Your task to perform on an android device: turn on showing notifications on the lock screen Image 0: 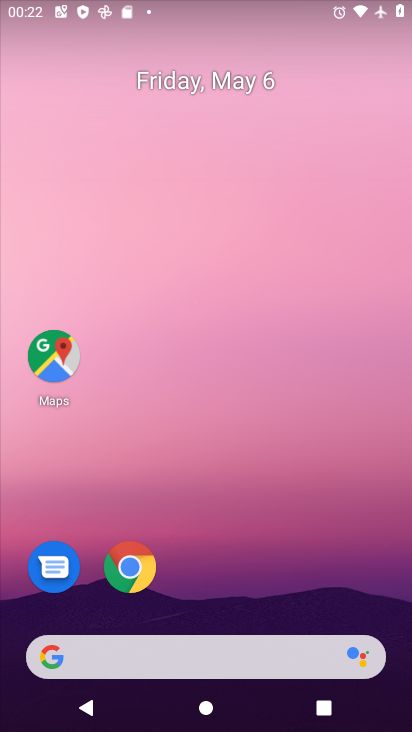
Step 0: drag from (217, 615) to (170, 188)
Your task to perform on an android device: turn on showing notifications on the lock screen Image 1: 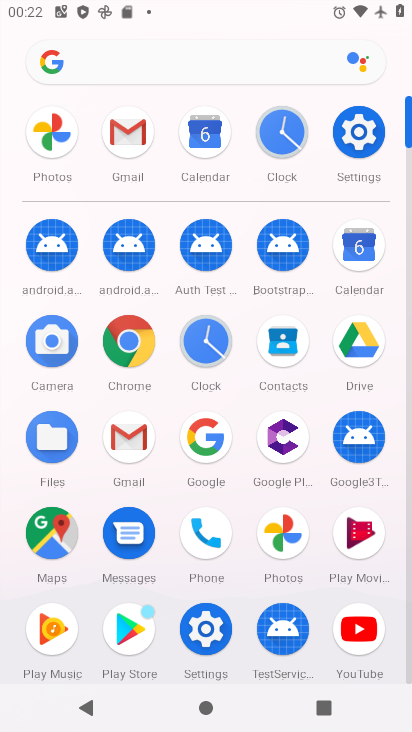
Step 1: click (352, 147)
Your task to perform on an android device: turn on showing notifications on the lock screen Image 2: 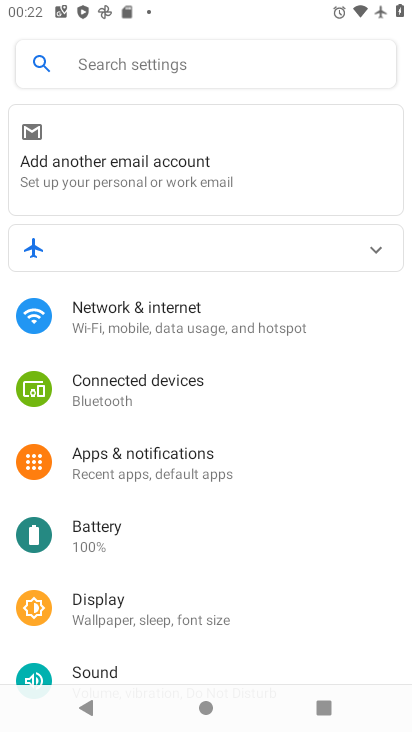
Step 2: drag from (194, 605) to (212, 289)
Your task to perform on an android device: turn on showing notifications on the lock screen Image 3: 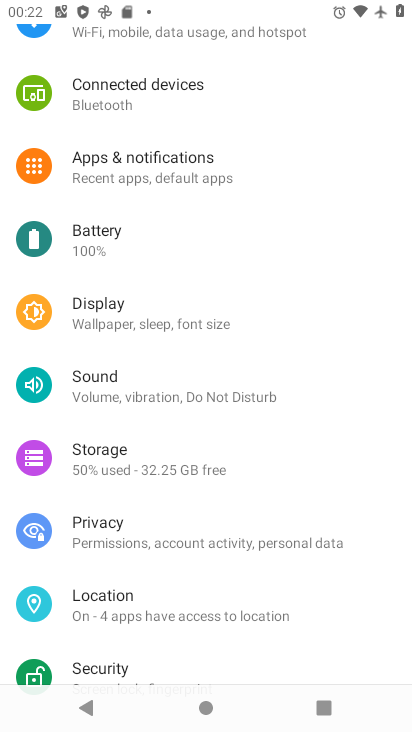
Step 3: drag from (178, 603) to (168, 647)
Your task to perform on an android device: turn on showing notifications on the lock screen Image 4: 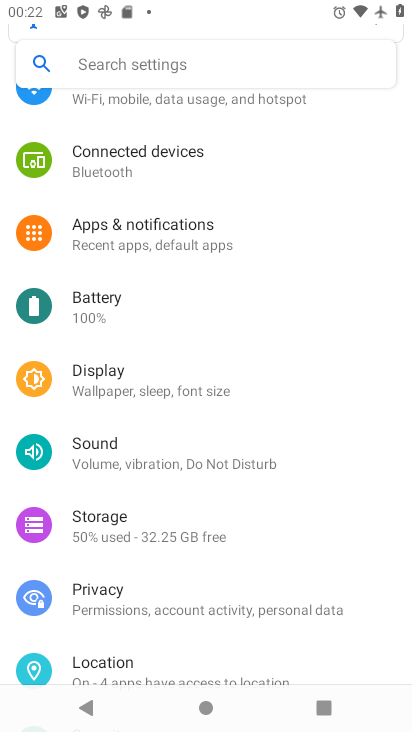
Step 4: click (166, 244)
Your task to perform on an android device: turn on showing notifications on the lock screen Image 5: 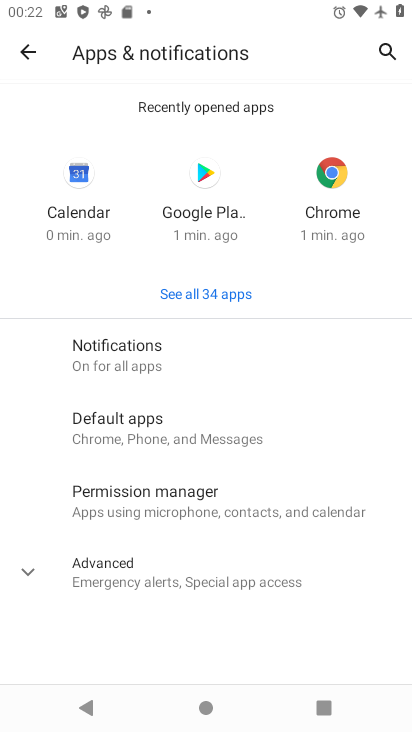
Step 5: click (167, 364)
Your task to perform on an android device: turn on showing notifications on the lock screen Image 6: 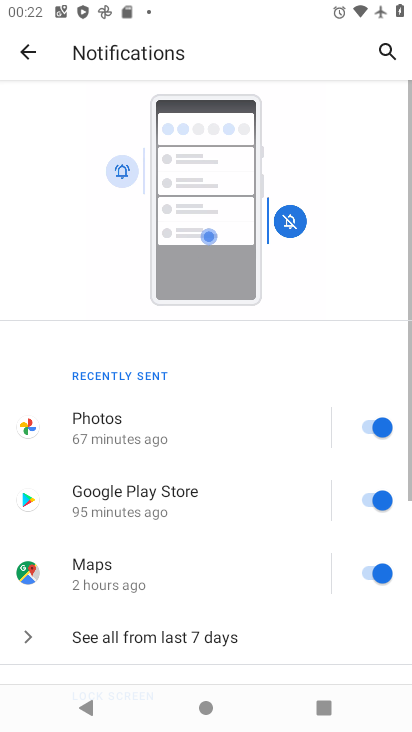
Step 6: drag from (219, 592) to (220, 189)
Your task to perform on an android device: turn on showing notifications on the lock screen Image 7: 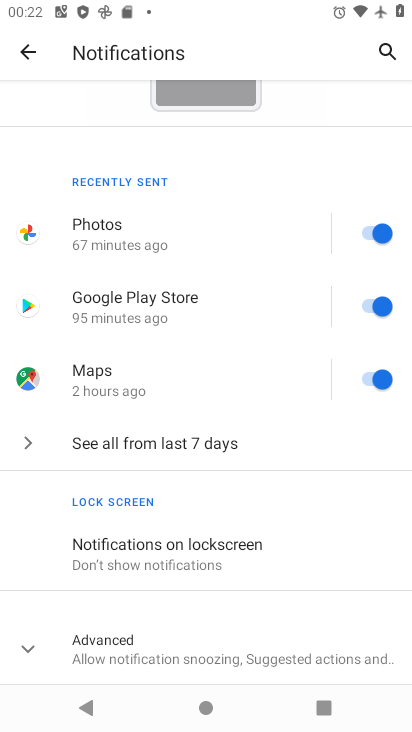
Step 7: click (201, 638)
Your task to perform on an android device: turn on showing notifications on the lock screen Image 8: 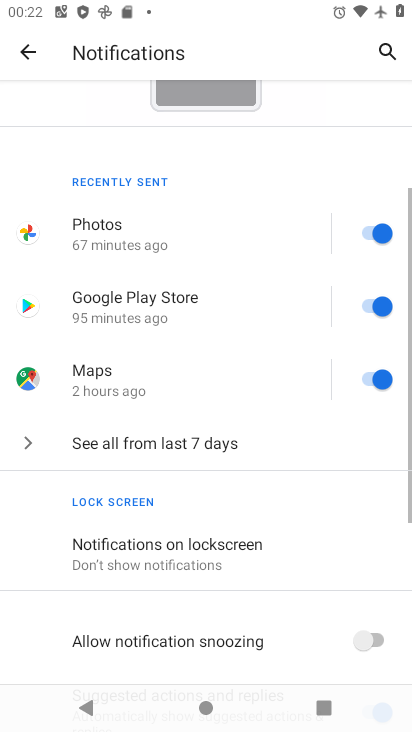
Step 8: click (196, 550)
Your task to perform on an android device: turn on showing notifications on the lock screen Image 9: 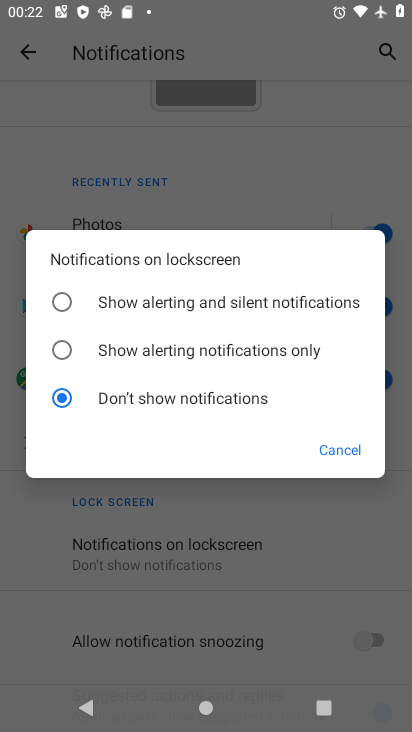
Step 9: click (141, 302)
Your task to perform on an android device: turn on showing notifications on the lock screen Image 10: 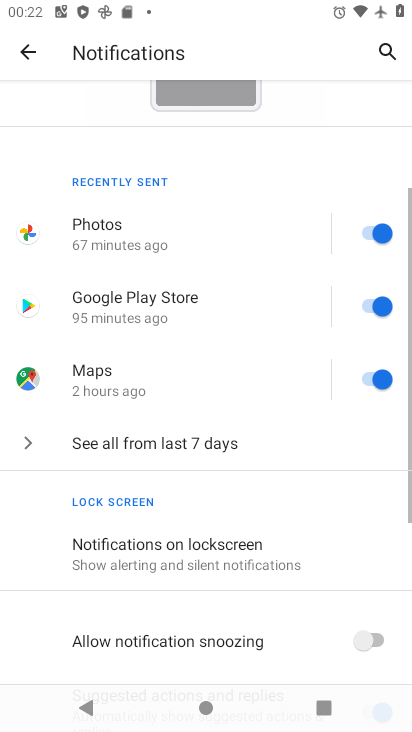
Step 10: task complete